Your task to perform on an android device: turn off improve location accuracy Image 0: 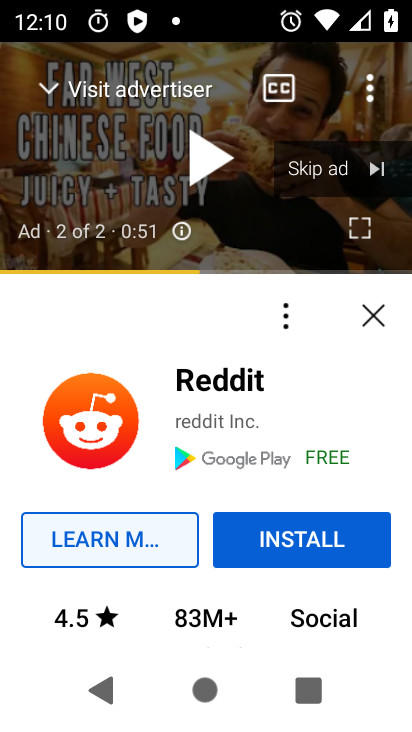
Step 0: press home button
Your task to perform on an android device: turn off improve location accuracy Image 1: 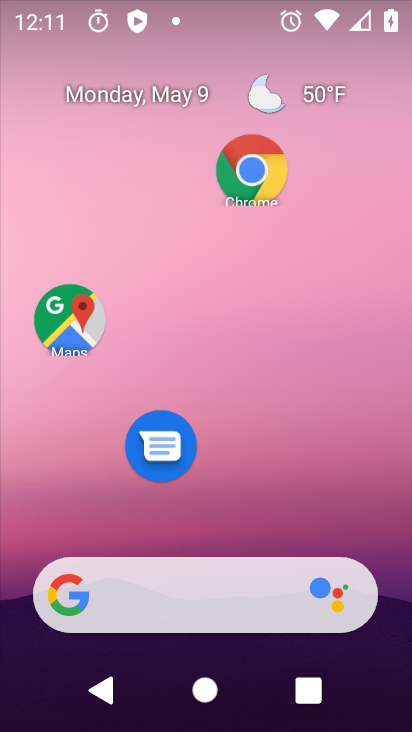
Step 1: drag from (271, 511) to (259, 38)
Your task to perform on an android device: turn off improve location accuracy Image 2: 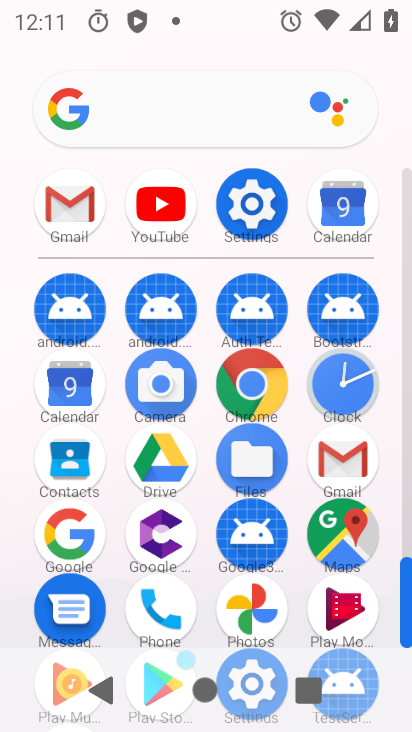
Step 2: click (265, 195)
Your task to perform on an android device: turn off improve location accuracy Image 3: 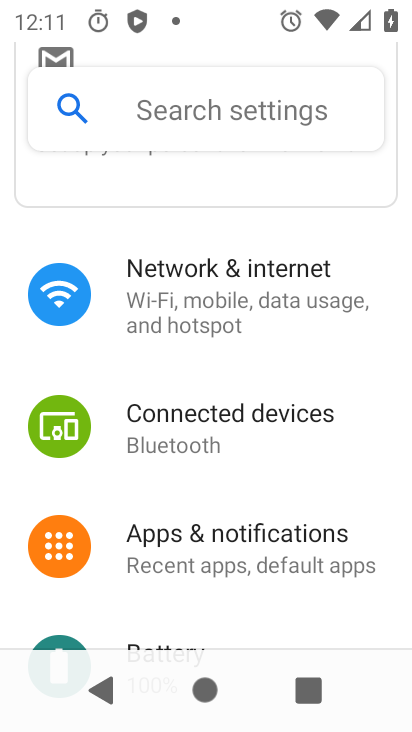
Step 3: drag from (201, 548) to (232, 401)
Your task to perform on an android device: turn off improve location accuracy Image 4: 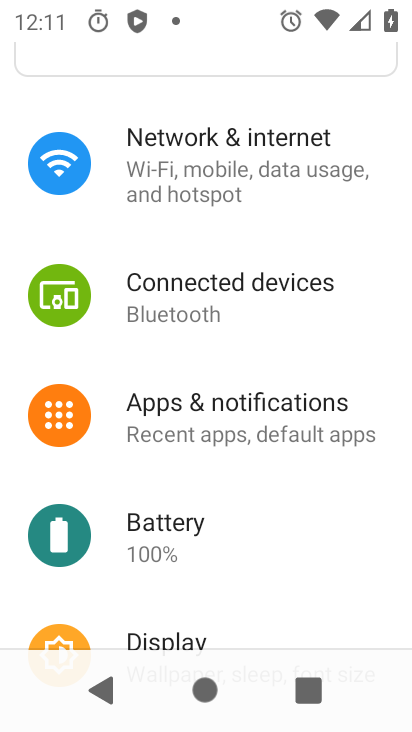
Step 4: drag from (200, 545) to (193, 453)
Your task to perform on an android device: turn off improve location accuracy Image 5: 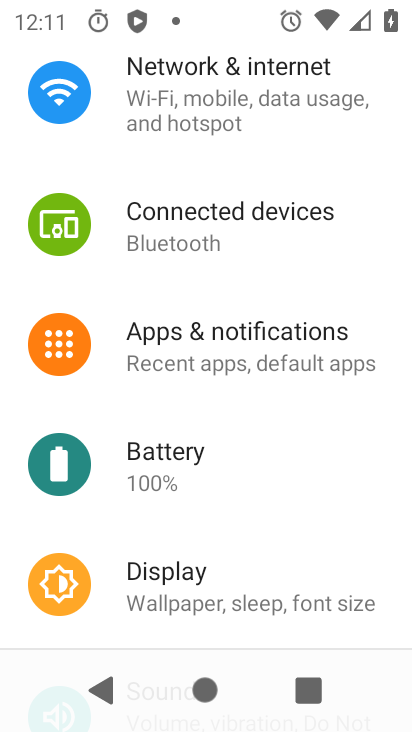
Step 5: drag from (212, 558) to (230, 439)
Your task to perform on an android device: turn off improve location accuracy Image 6: 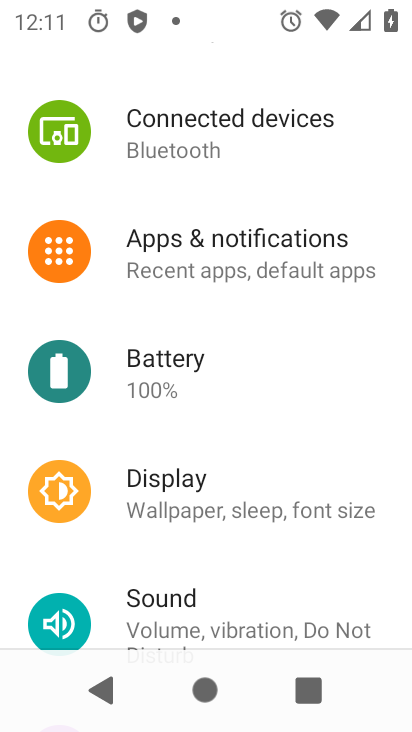
Step 6: drag from (230, 601) to (253, 479)
Your task to perform on an android device: turn off improve location accuracy Image 7: 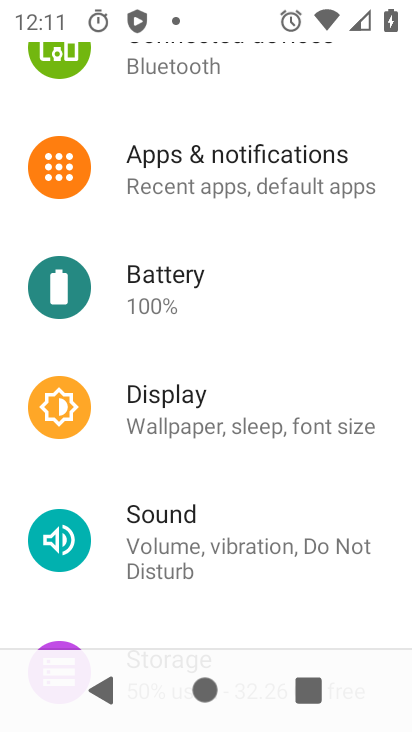
Step 7: drag from (201, 597) to (200, 484)
Your task to perform on an android device: turn off improve location accuracy Image 8: 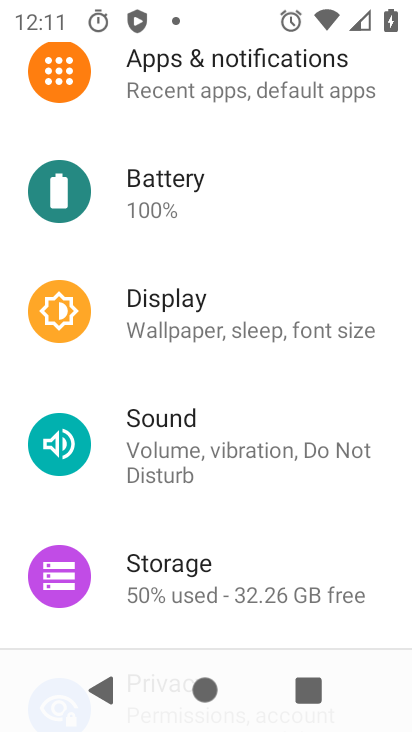
Step 8: drag from (203, 588) to (245, 434)
Your task to perform on an android device: turn off improve location accuracy Image 9: 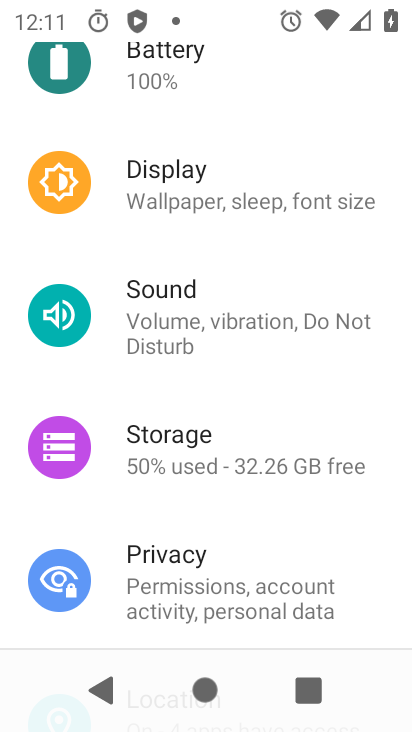
Step 9: drag from (271, 551) to (297, 450)
Your task to perform on an android device: turn off improve location accuracy Image 10: 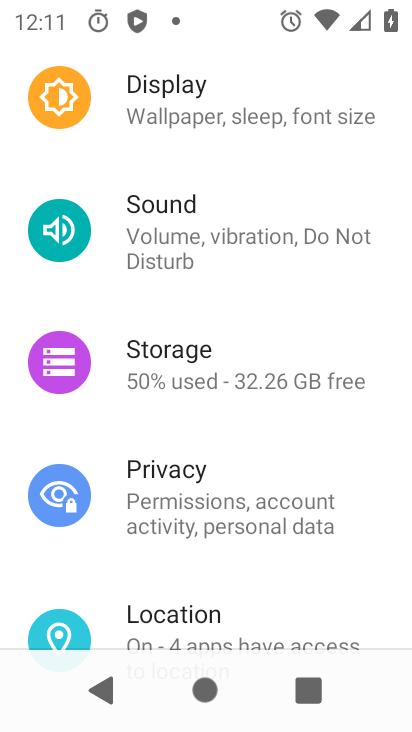
Step 10: drag from (237, 566) to (269, 359)
Your task to perform on an android device: turn off improve location accuracy Image 11: 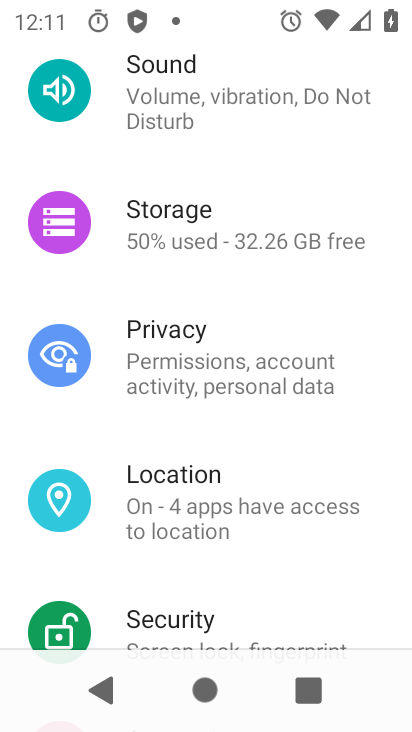
Step 11: click (171, 506)
Your task to perform on an android device: turn off improve location accuracy Image 12: 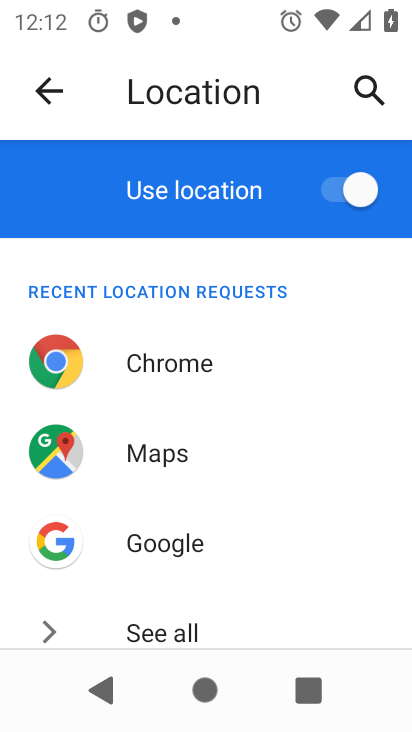
Step 12: drag from (200, 581) to (268, 277)
Your task to perform on an android device: turn off improve location accuracy Image 13: 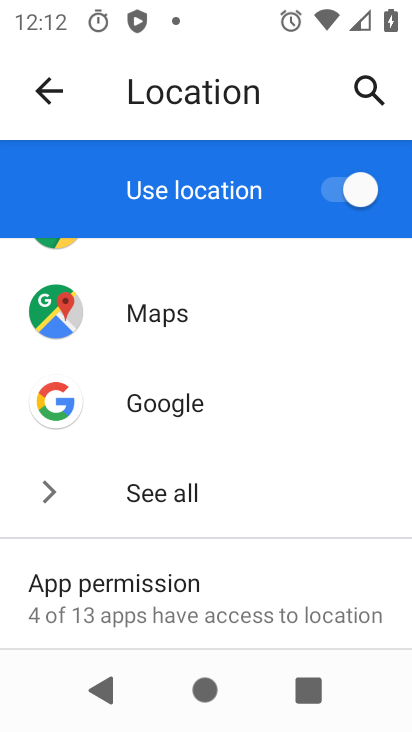
Step 13: drag from (225, 569) to (229, 245)
Your task to perform on an android device: turn off improve location accuracy Image 14: 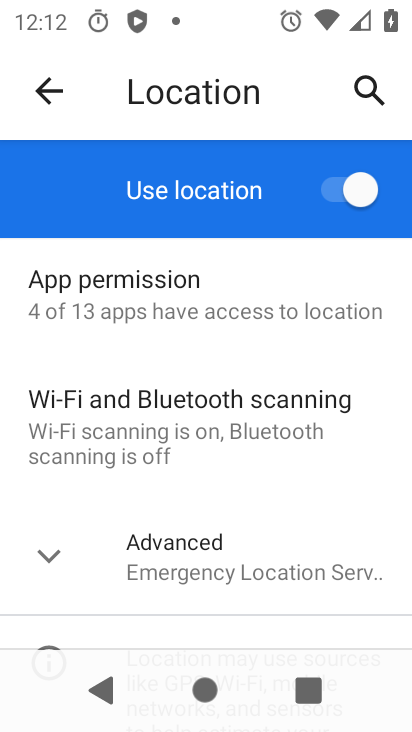
Step 14: drag from (193, 537) to (183, 316)
Your task to perform on an android device: turn off improve location accuracy Image 15: 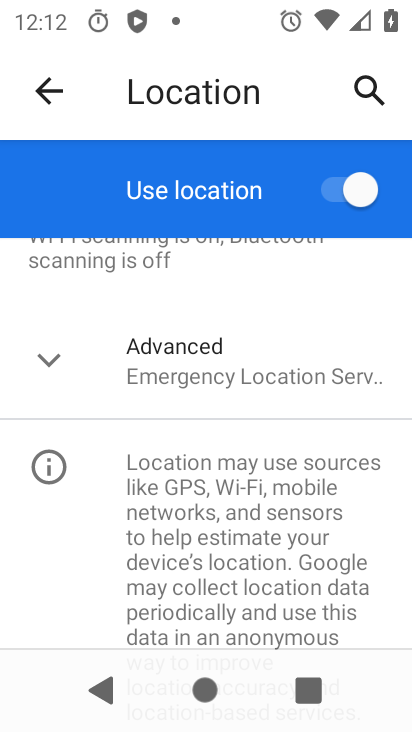
Step 15: click (218, 362)
Your task to perform on an android device: turn off improve location accuracy Image 16: 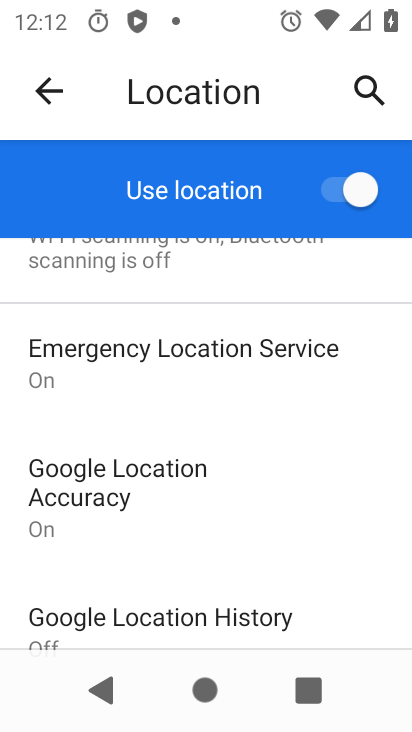
Step 16: click (127, 488)
Your task to perform on an android device: turn off improve location accuracy Image 17: 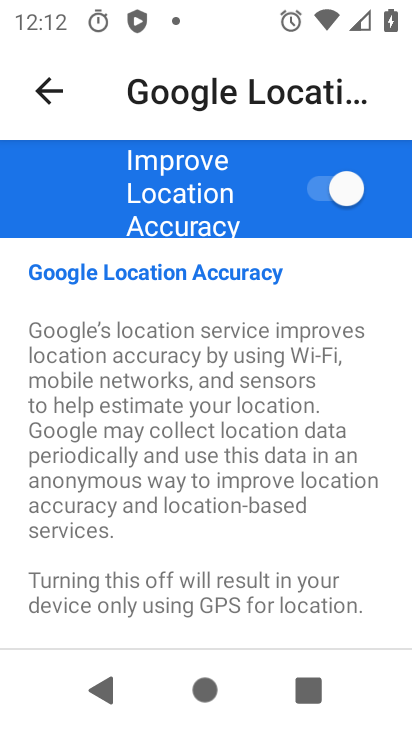
Step 17: click (321, 201)
Your task to perform on an android device: turn off improve location accuracy Image 18: 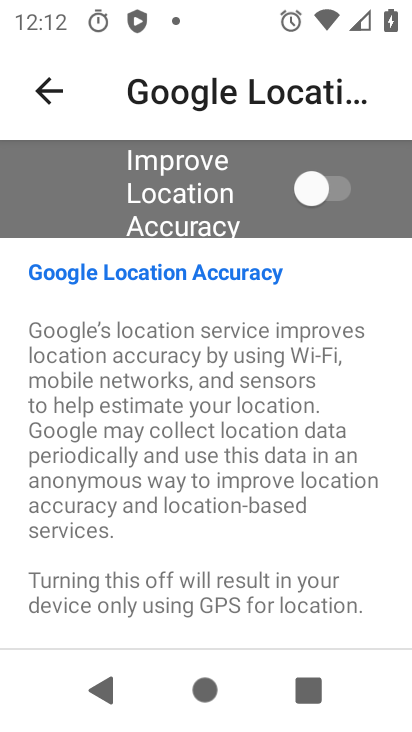
Step 18: task complete